Your task to perform on an android device: install app "Move to iOS" Image 0: 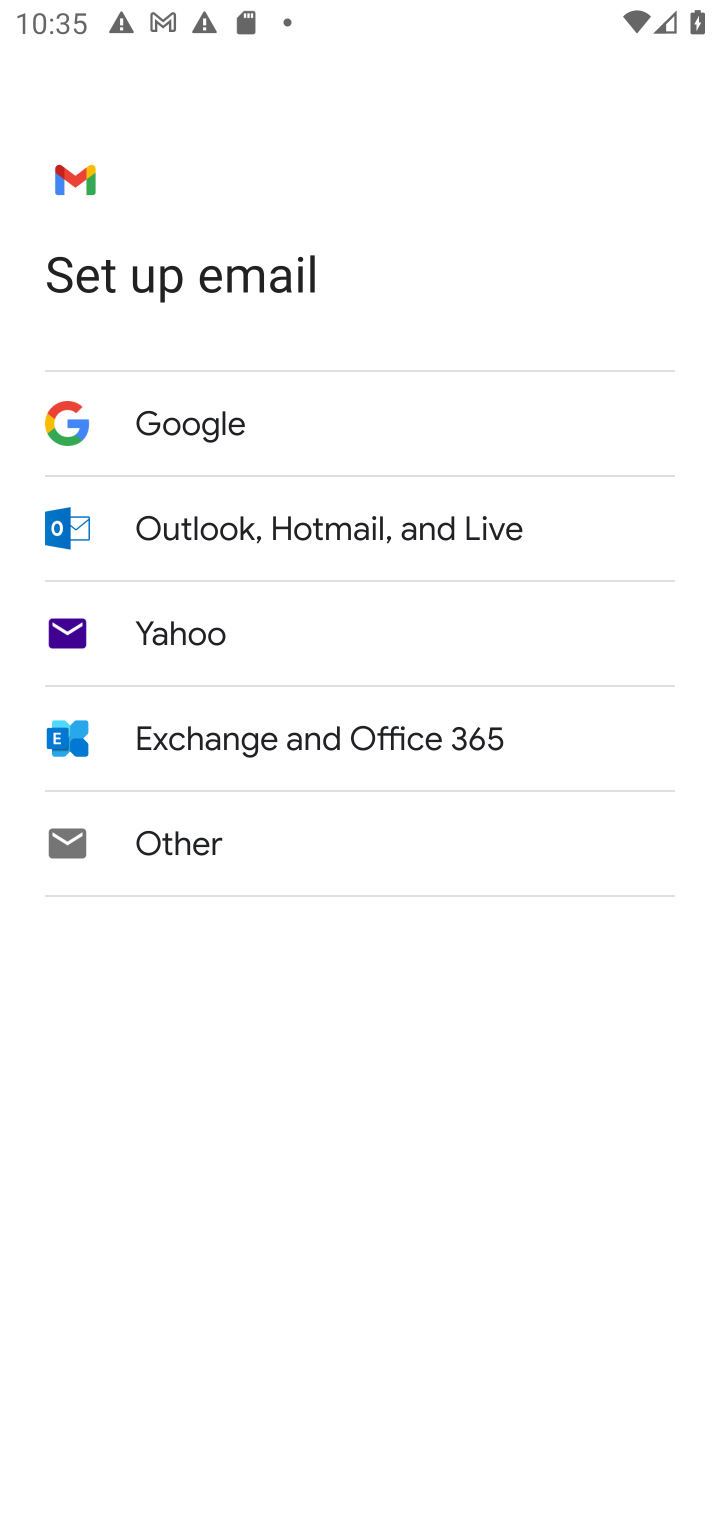
Step 0: press home button
Your task to perform on an android device: install app "Move to iOS" Image 1: 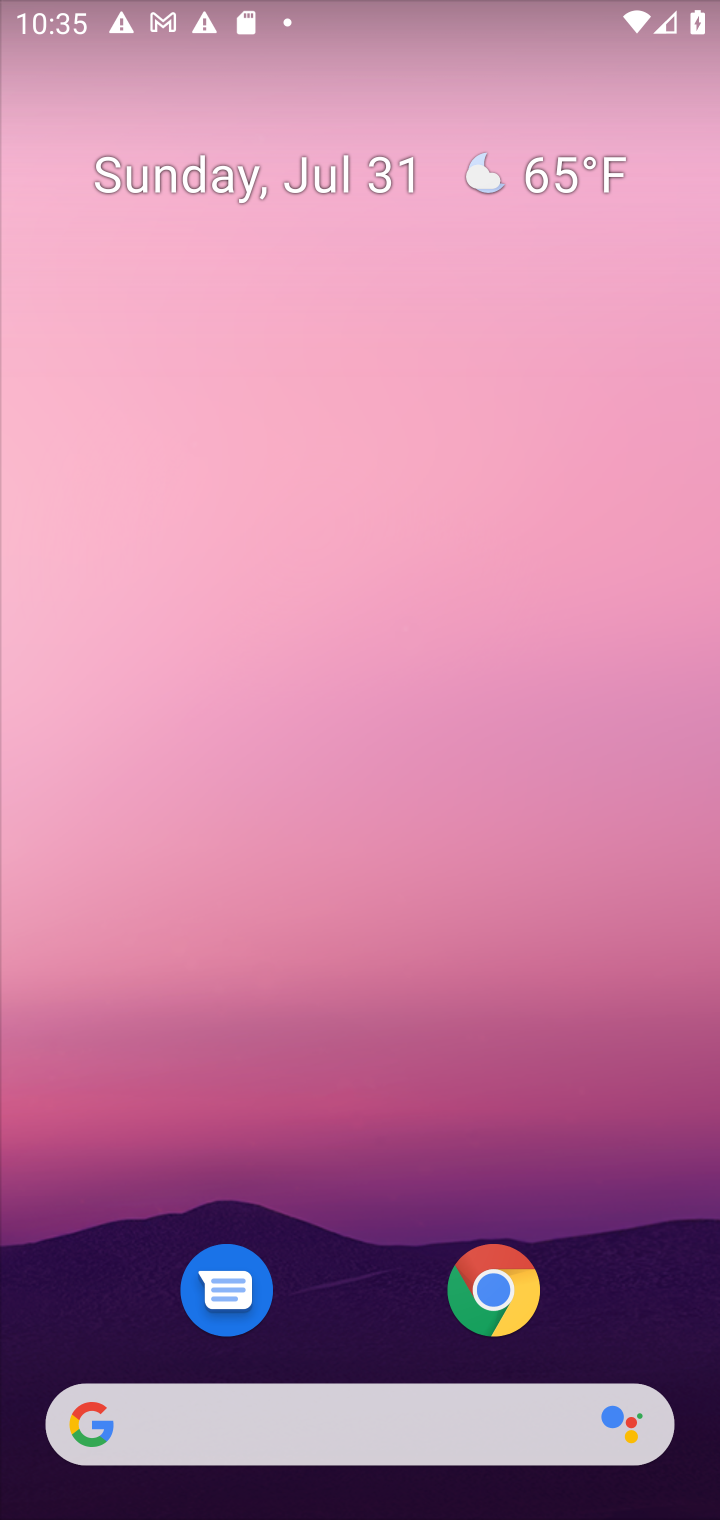
Step 1: drag from (624, 1269) to (607, 121)
Your task to perform on an android device: install app "Move to iOS" Image 2: 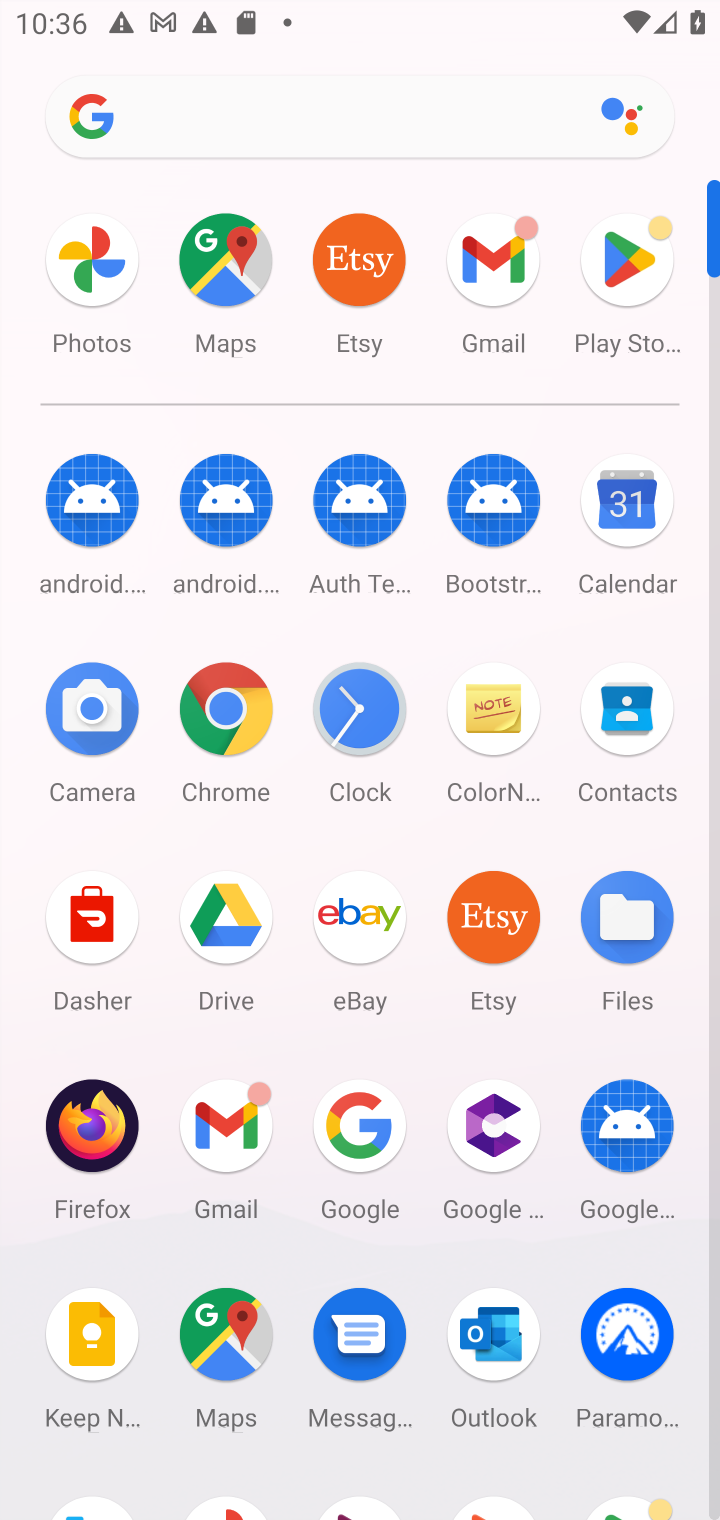
Step 2: click (630, 265)
Your task to perform on an android device: install app "Move to iOS" Image 3: 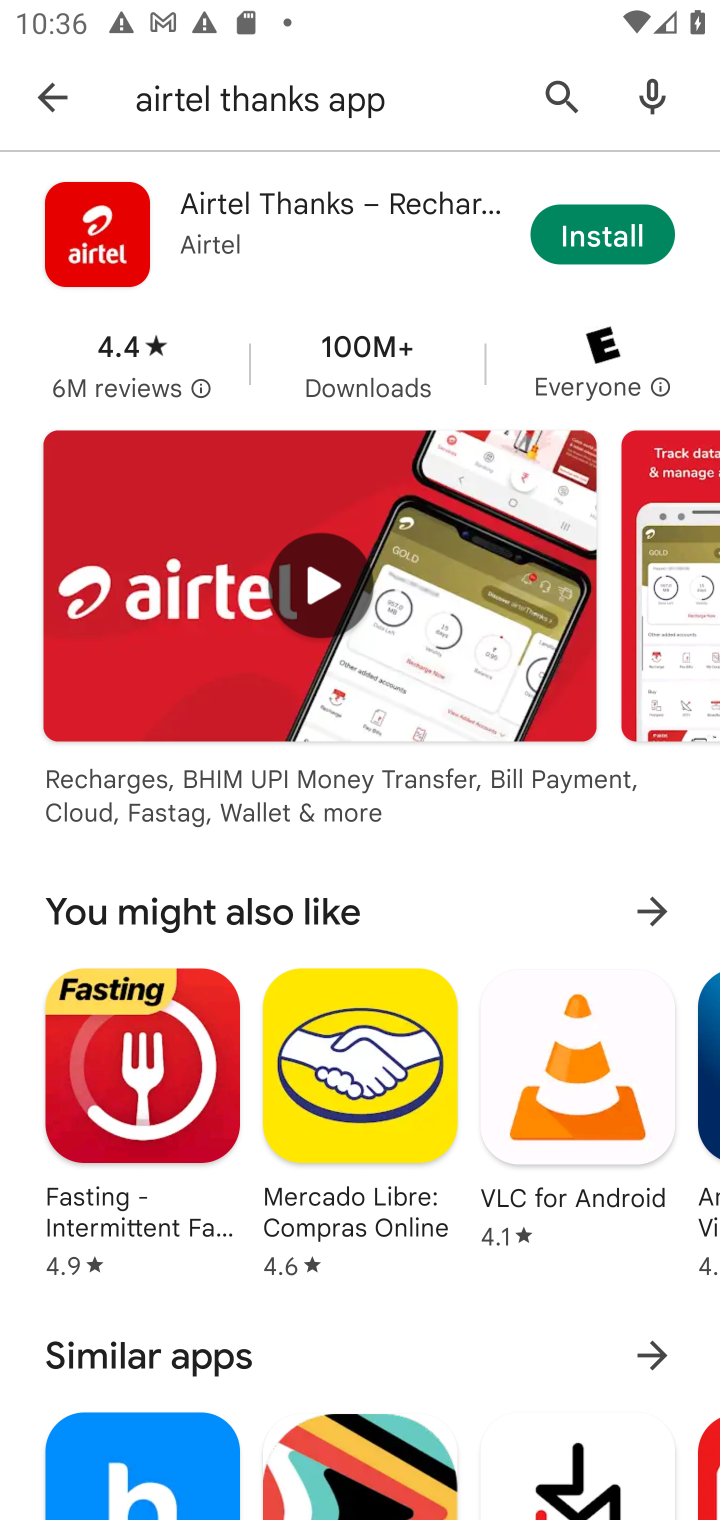
Step 3: click (546, 86)
Your task to perform on an android device: install app "Move to iOS" Image 4: 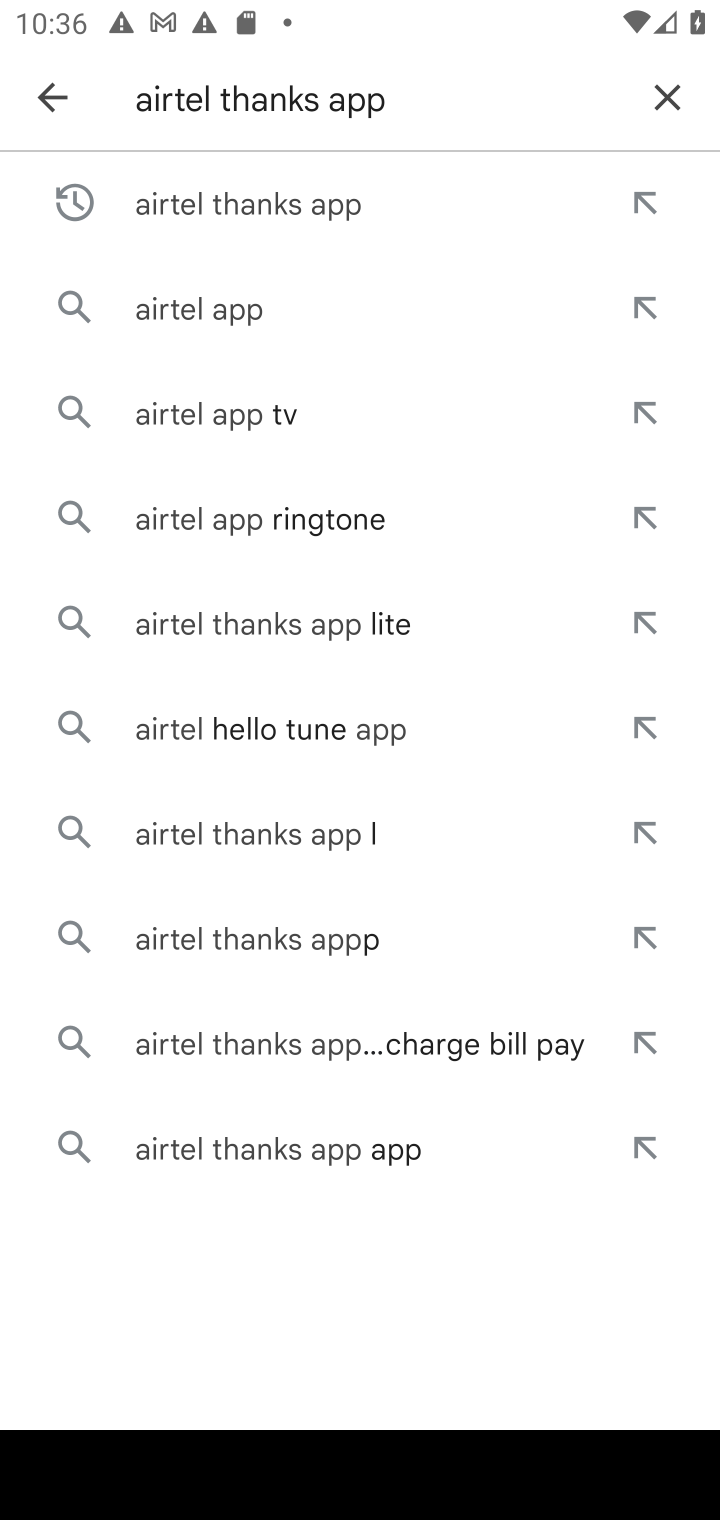
Step 4: click (644, 89)
Your task to perform on an android device: install app "Move to iOS" Image 5: 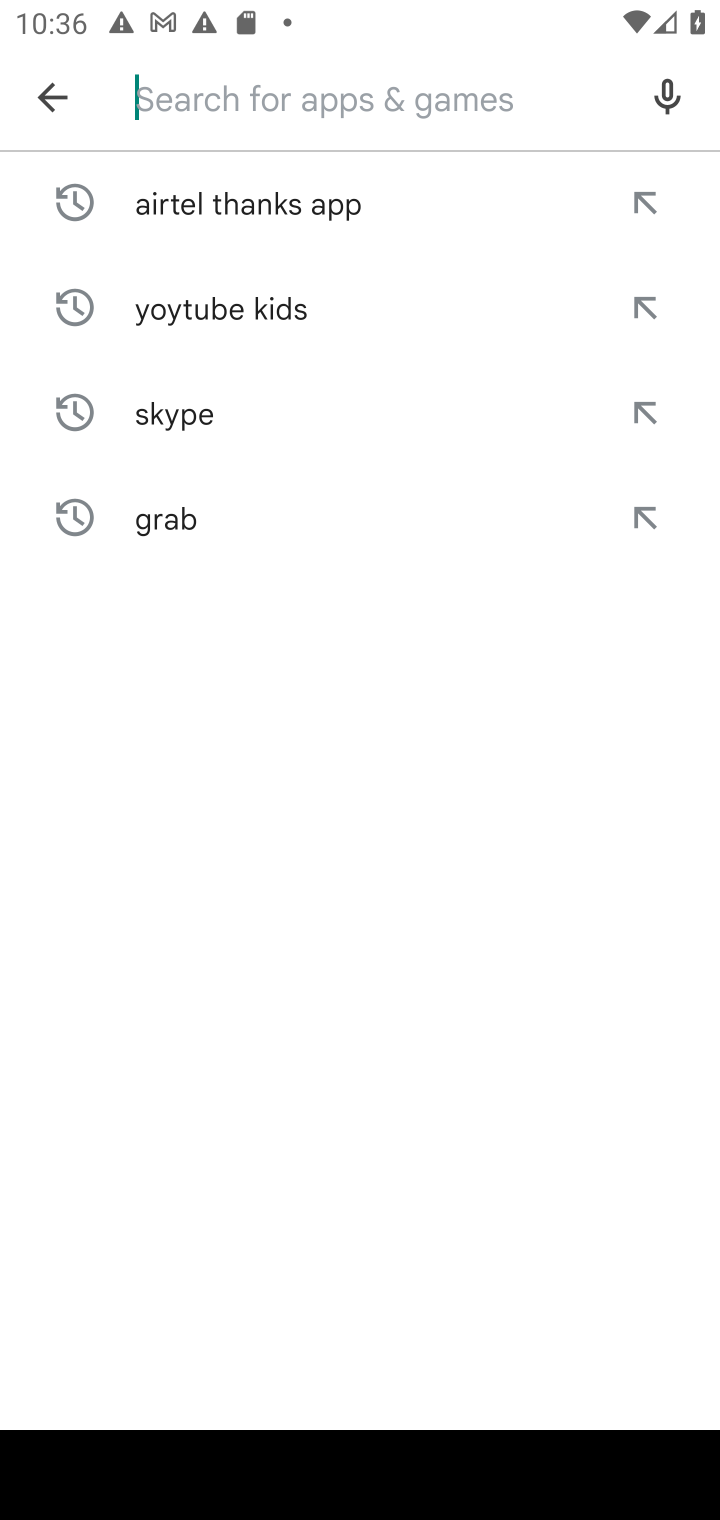
Step 5: type "move to ios"
Your task to perform on an android device: install app "Move to iOS" Image 6: 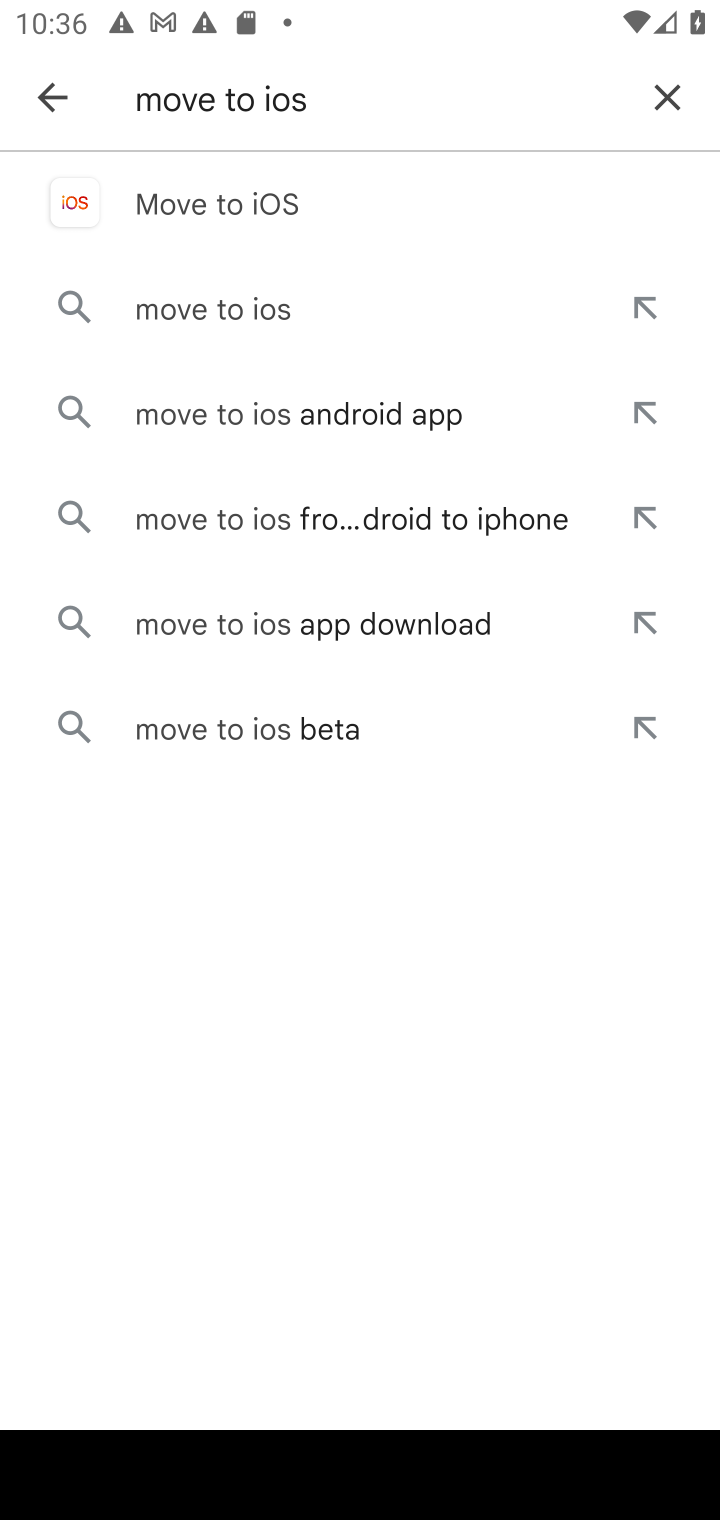
Step 6: click (227, 207)
Your task to perform on an android device: install app "Move to iOS" Image 7: 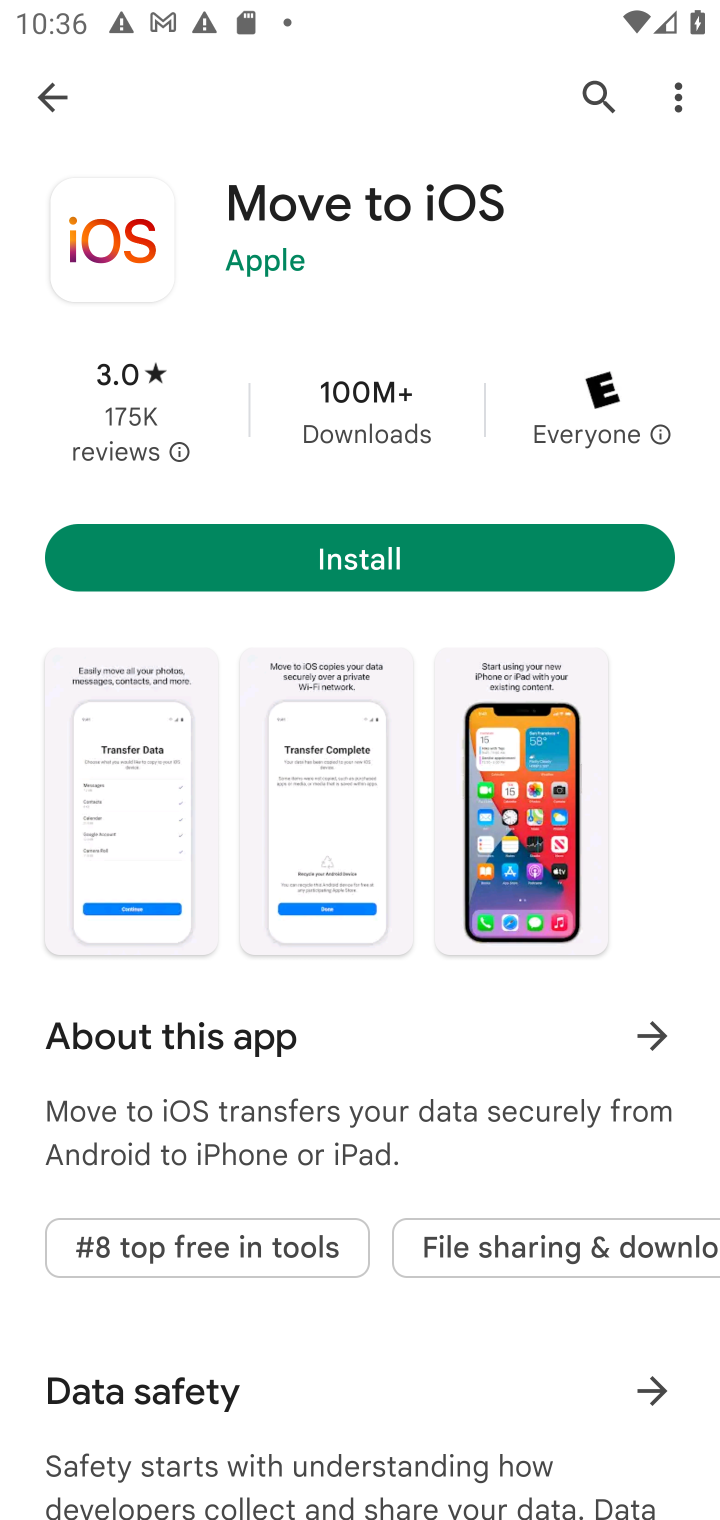
Step 7: click (431, 562)
Your task to perform on an android device: install app "Move to iOS" Image 8: 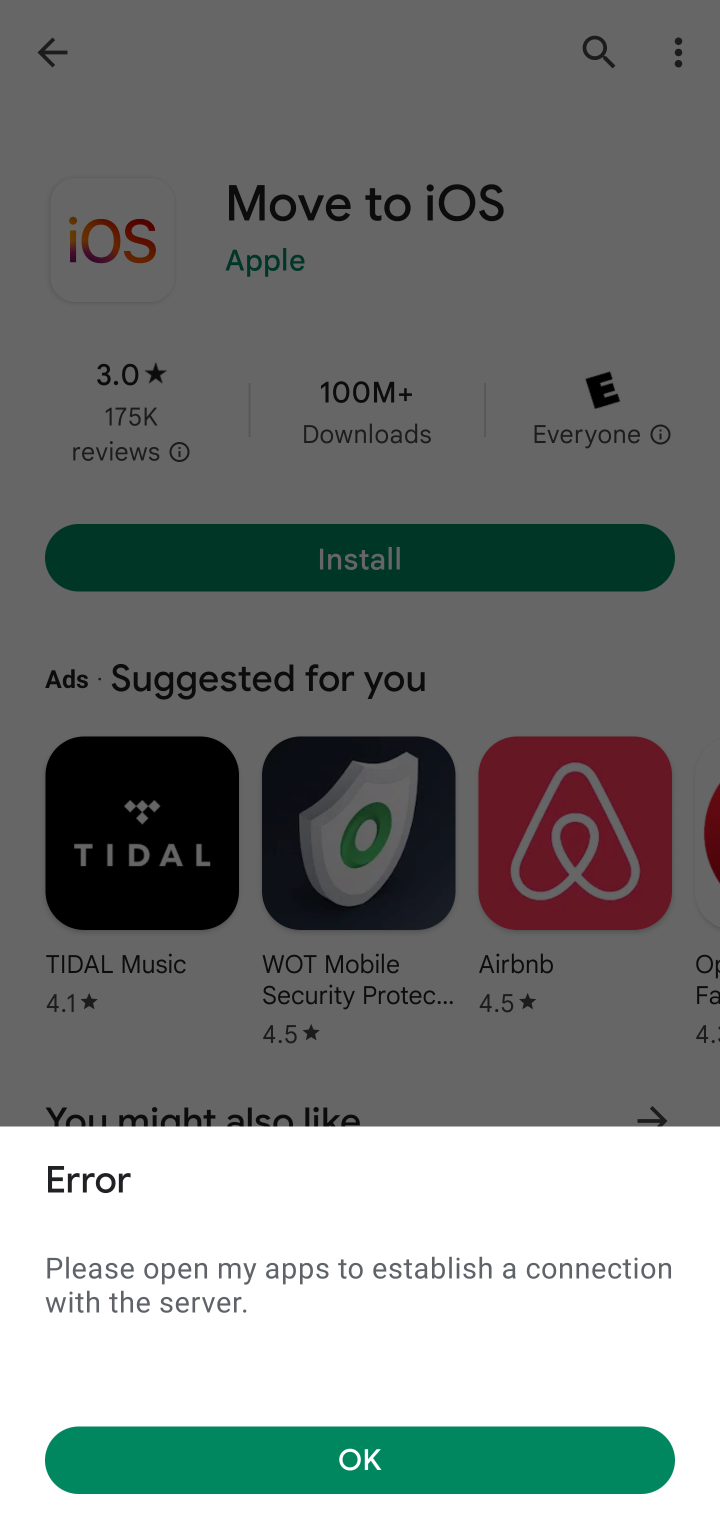
Step 8: task complete